Your task to perform on an android device: empty trash in google photos Image 0: 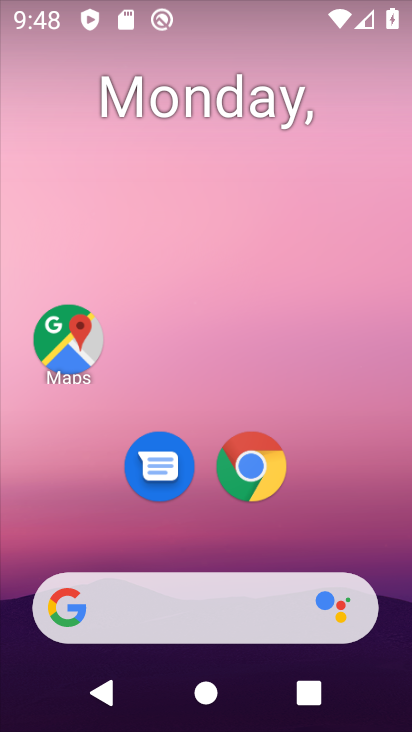
Step 0: drag from (372, 512) to (374, 40)
Your task to perform on an android device: empty trash in google photos Image 1: 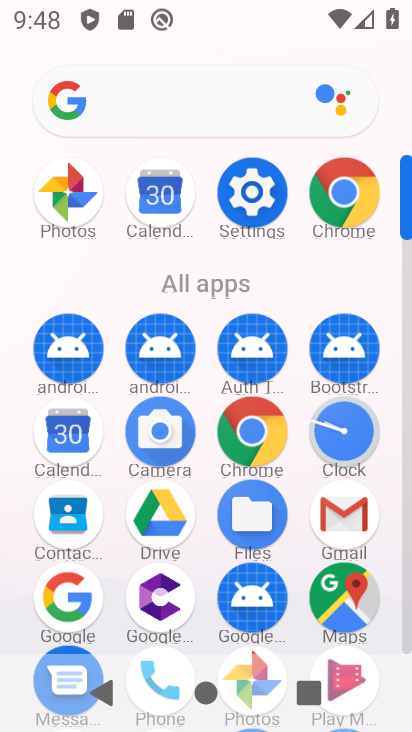
Step 1: click (237, 207)
Your task to perform on an android device: empty trash in google photos Image 2: 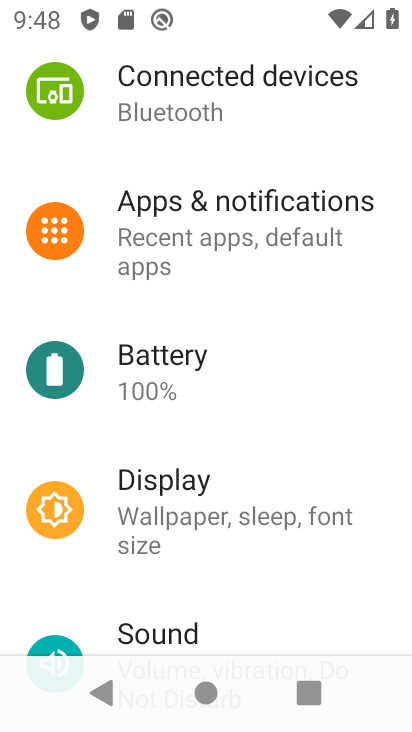
Step 2: press home button
Your task to perform on an android device: empty trash in google photos Image 3: 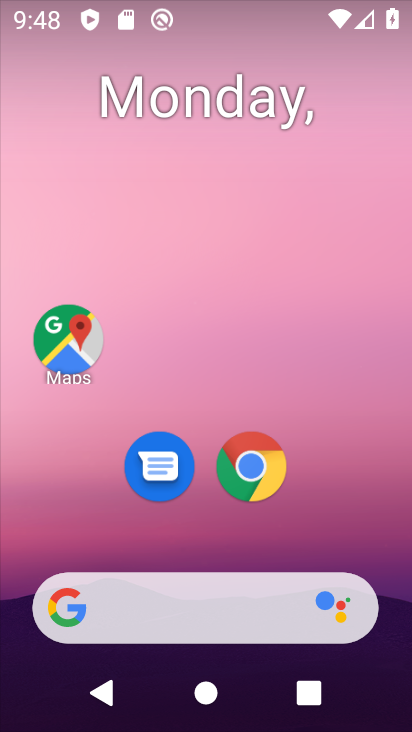
Step 3: drag from (377, 521) to (378, 152)
Your task to perform on an android device: empty trash in google photos Image 4: 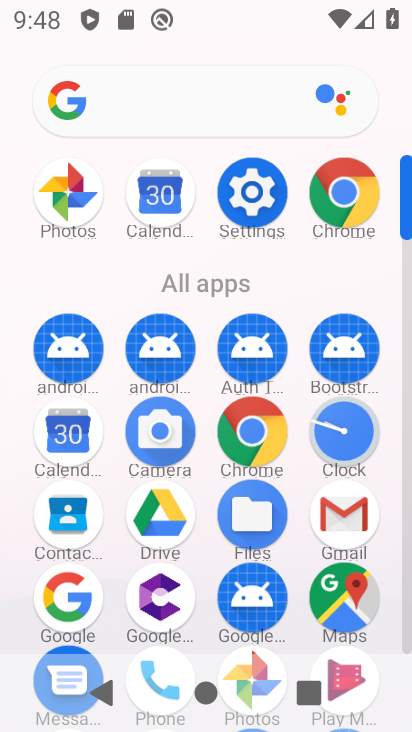
Step 4: click (407, 649)
Your task to perform on an android device: empty trash in google photos Image 5: 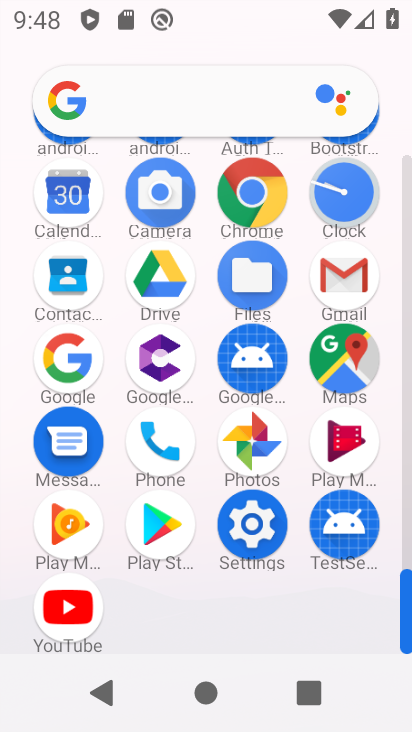
Step 5: click (239, 435)
Your task to perform on an android device: empty trash in google photos Image 6: 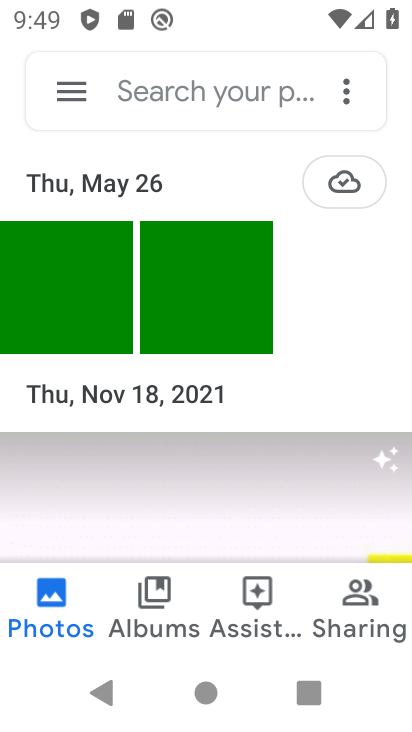
Step 6: click (57, 111)
Your task to perform on an android device: empty trash in google photos Image 7: 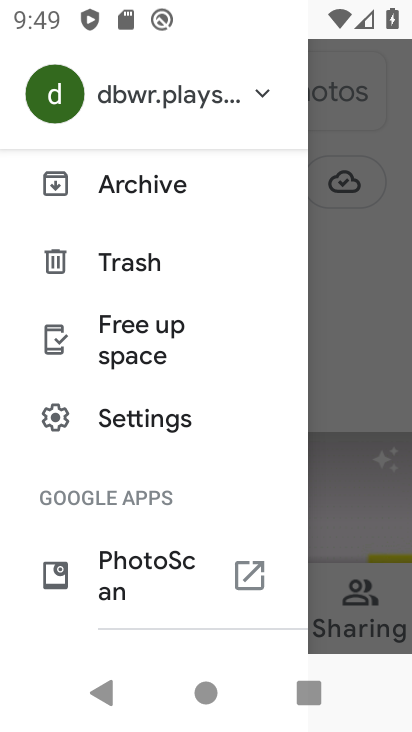
Step 7: click (126, 278)
Your task to perform on an android device: empty trash in google photos Image 8: 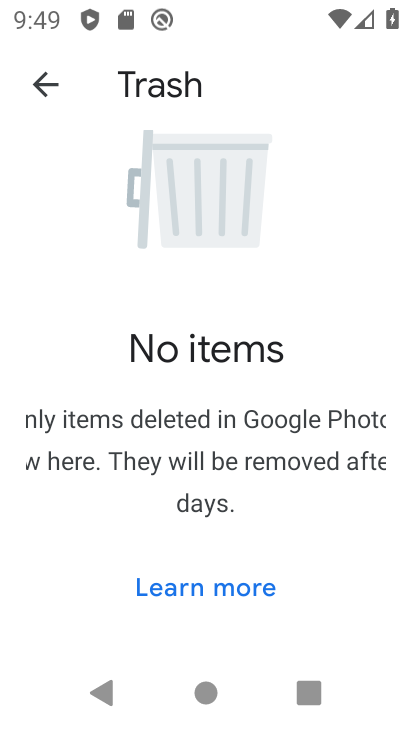
Step 8: task complete